Your task to perform on an android device: read, delete, or share a saved page in the chrome app Image 0: 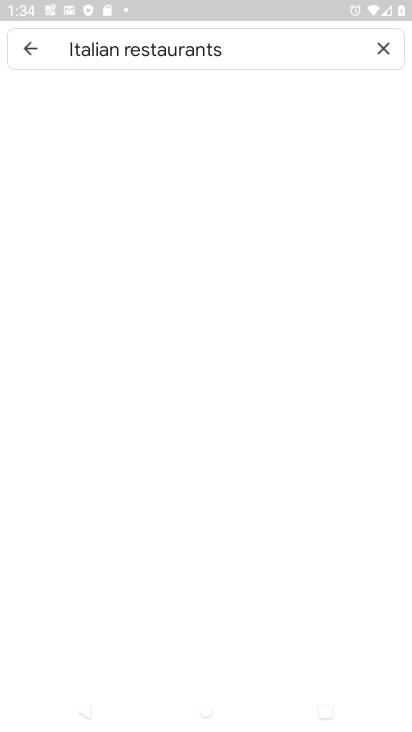
Step 0: press home button
Your task to perform on an android device: read, delete, or share a saved page in the chrome app Image 1: 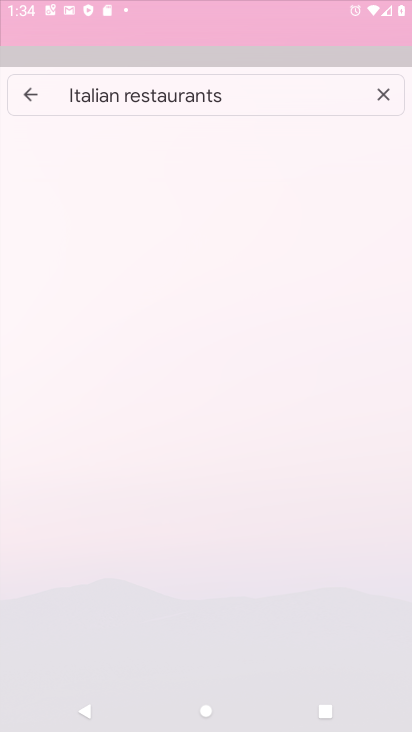
Step 1: drag from (399, 678) to (247, 34)
Your task to perform on an android device: read, delete, or share a saved page in the chrome app Image 2: 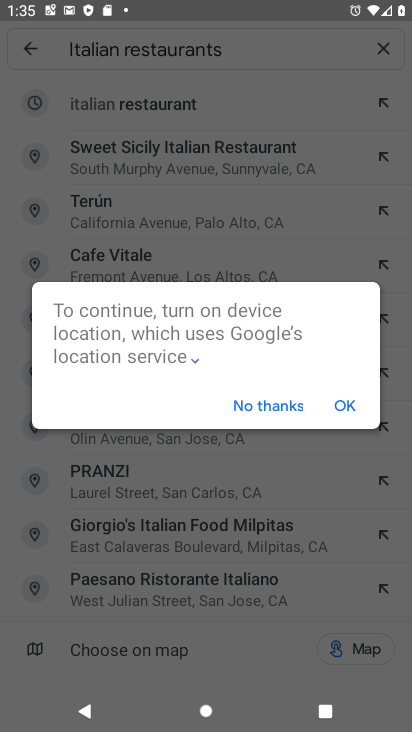
Step 2: press home button
Your task to perform on an android device: read, delete, or share a saved page in the chrome app Image 3: 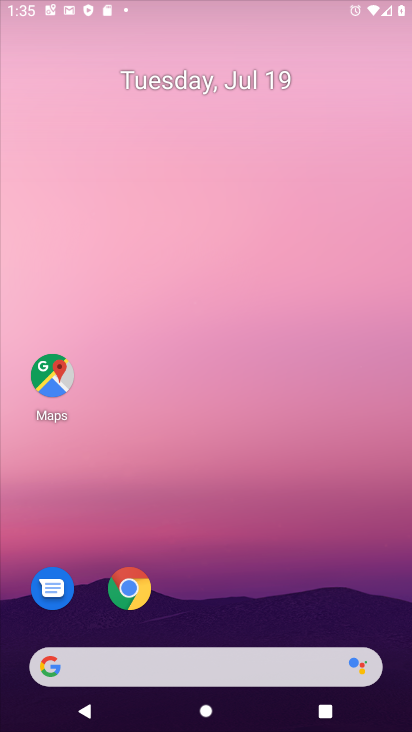
Step 3: drag from (383, 637) to (175, 25)
Your task to perform on an android device: read, delete, or share a saved page in the chrome app Image 4: 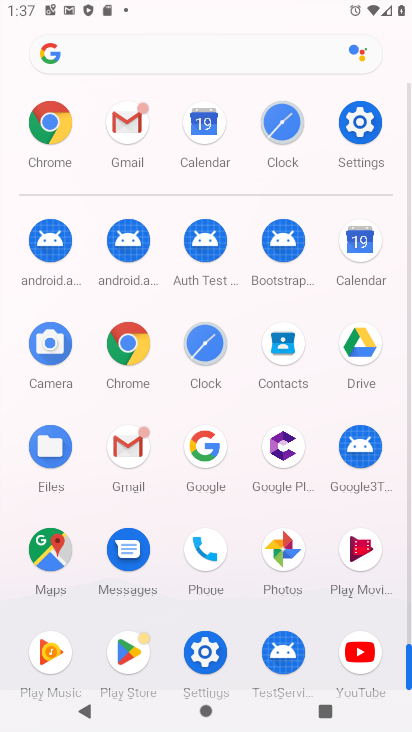
Step 4: click (141, 349)
Your task to perform on an android device: read, delete, or share a saved page in the chrome app Image 5: 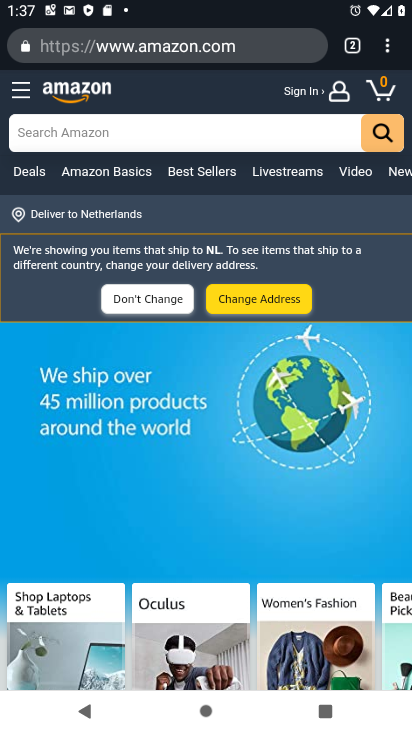
Step 5: task complete